Your task to perform on an android device: See recent photos Image 0: 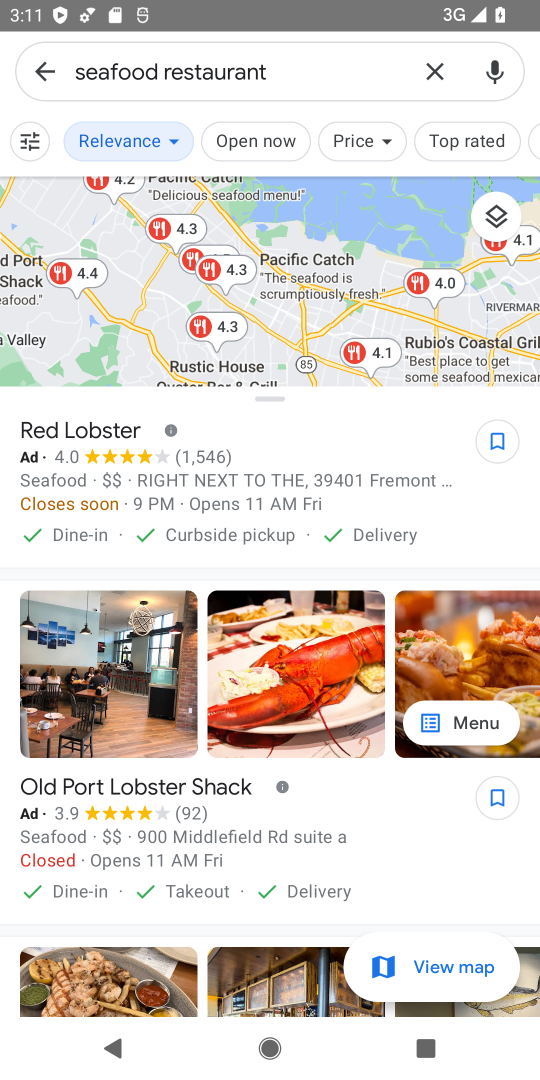
Step 0: press home button
Your task to perform on an android device: See recent photos Image 1: 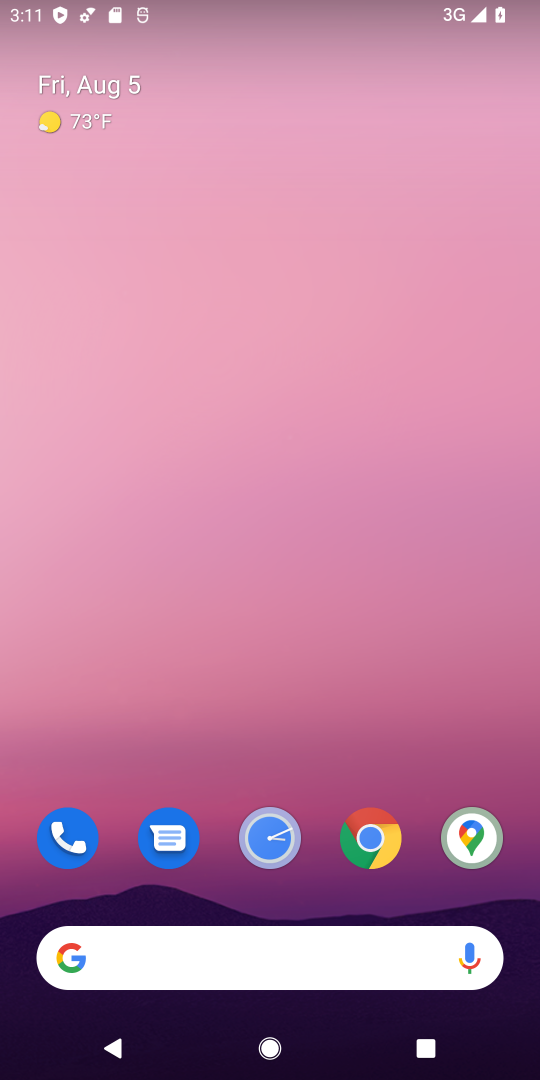
Step 1: drag from (260, 995) to (276, 175)
Your task to perform on an android device: See recent photos Image 2: 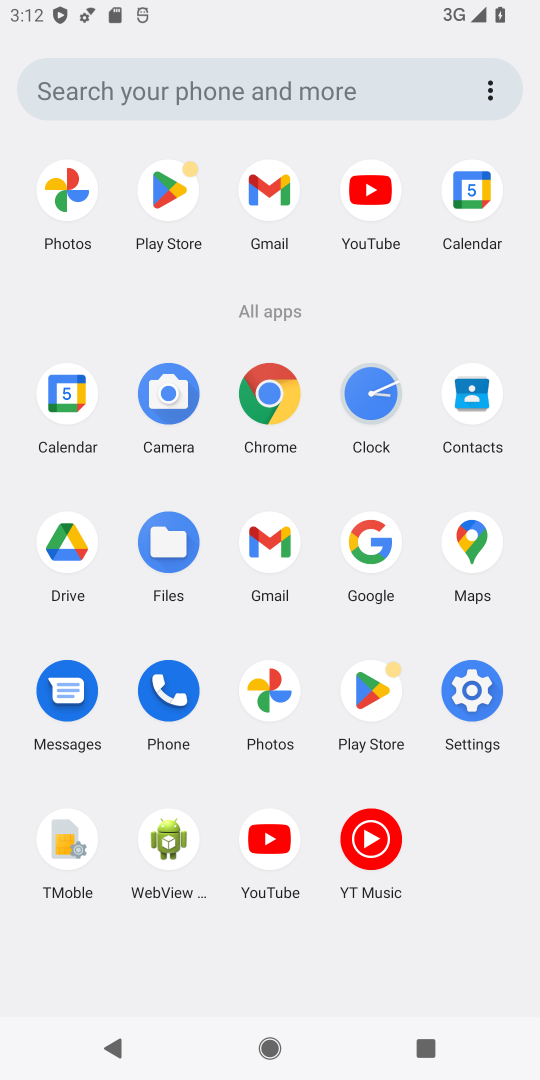
Step 2: click (264, 527)
Your task to perform on an android device: See recent photos Image 3: 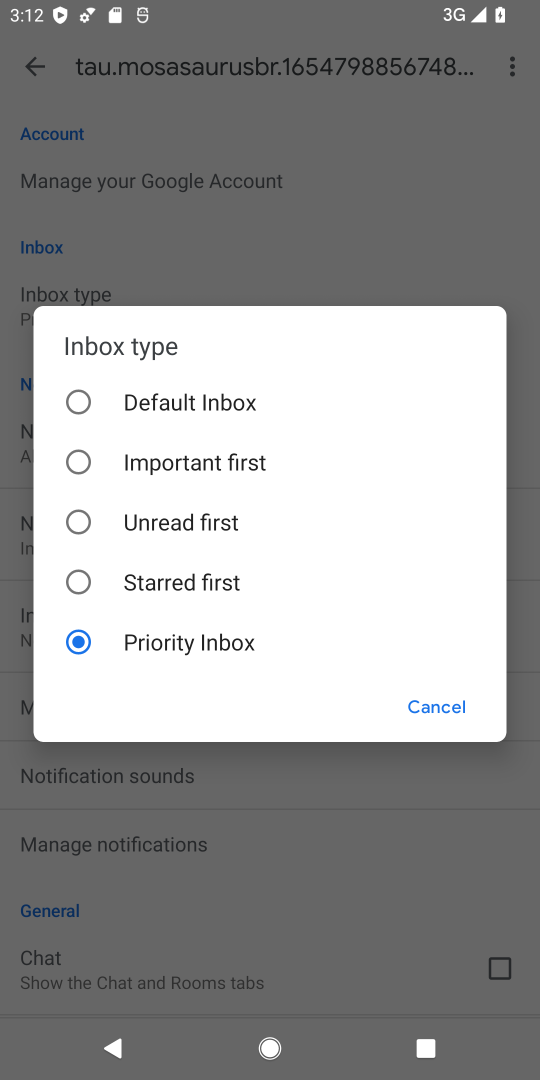
Step 3: press home button
Your task to perform on an android device: See recent photos Image 4: 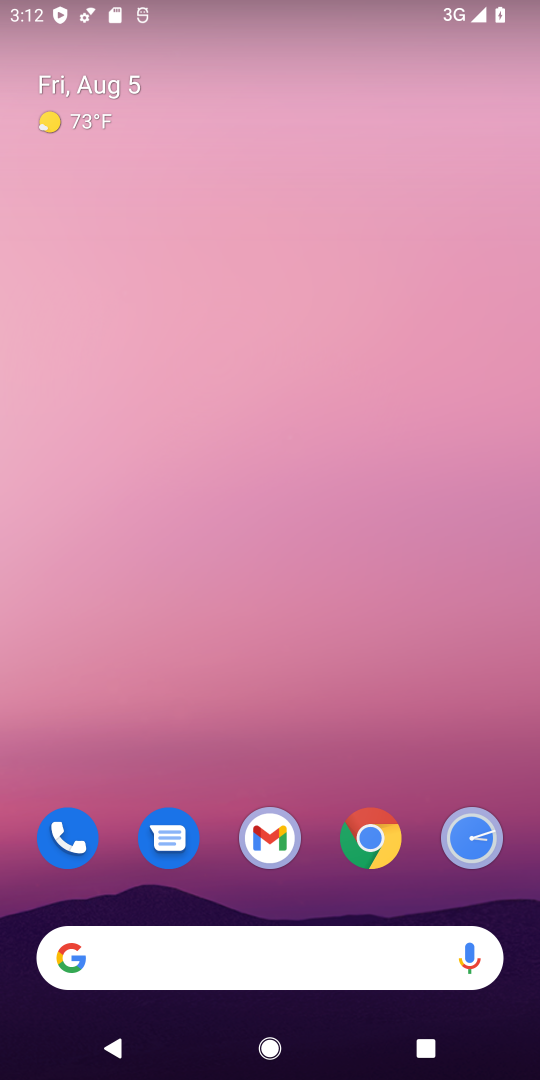
Step 4: drag from (222, 809) to (453, 155)
Your task to perform on an android device: See recent photos Image 5: 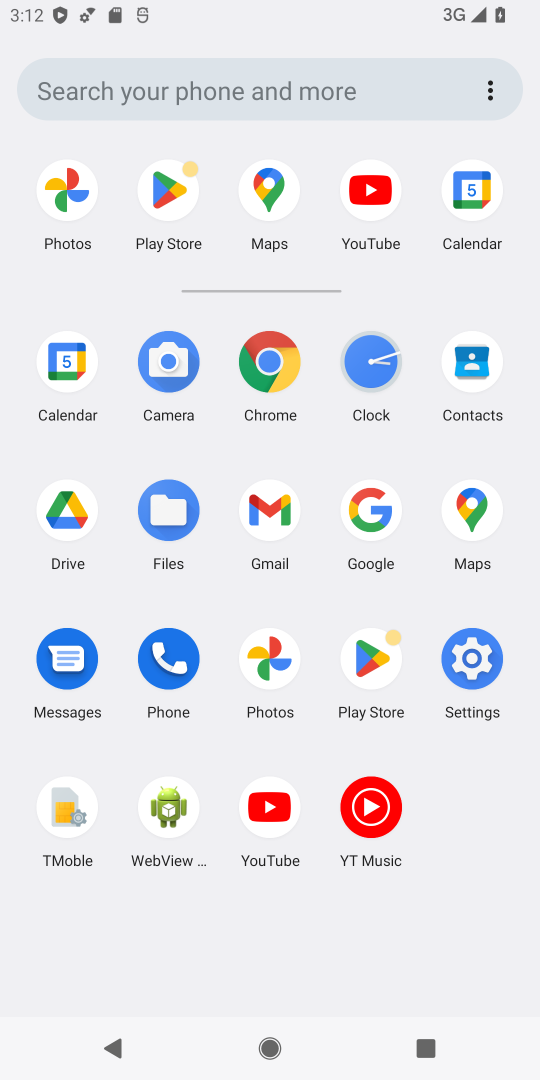
Step 5: click (250, 351)
Your task to perform on an android device: See recent photos Image 6: 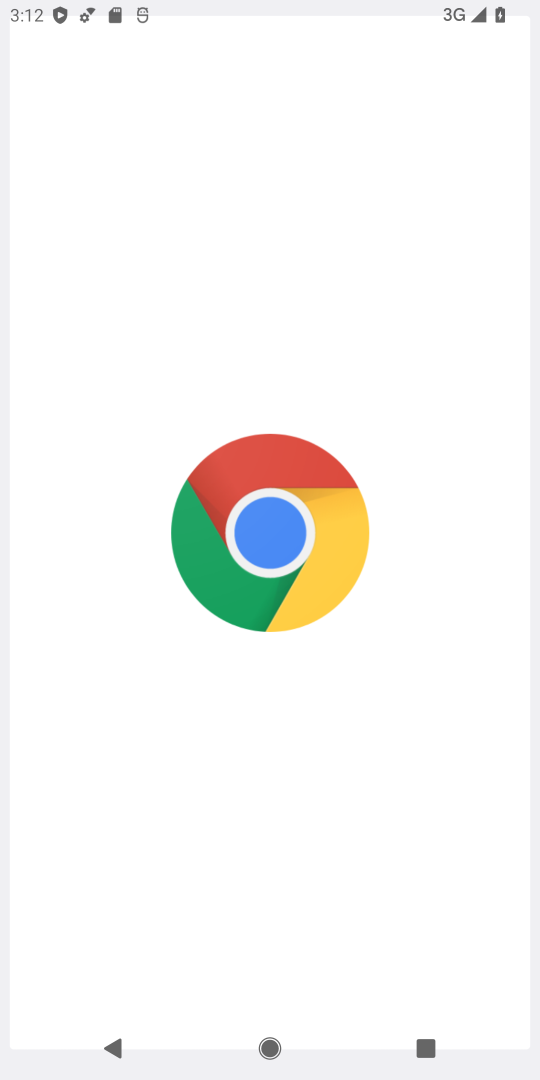
Step 6: click (283, 385)
Your task to perform on an android device: See recent photos Image 7: 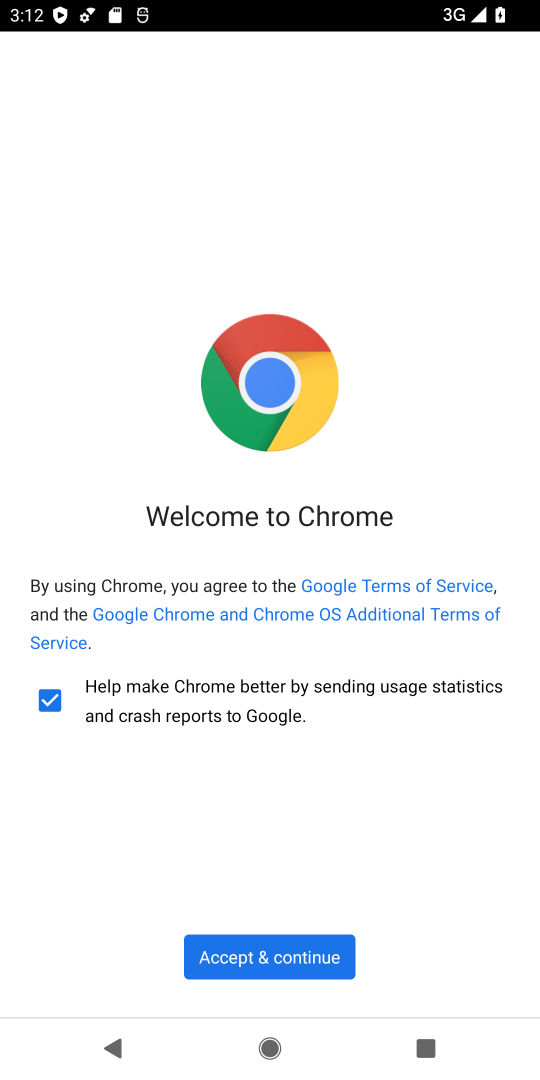
Step 7: click (308, 952)
Your task to perform on an android device: See recent photos Image 8: 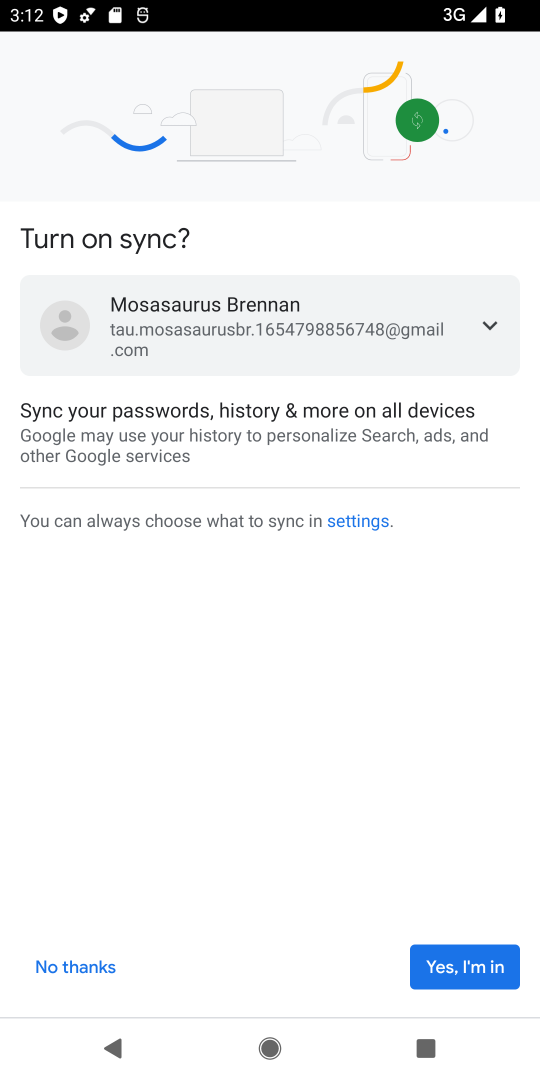
Step 8: click (485, 965)
Your task to perform on an android device: See recent photos Image 9: 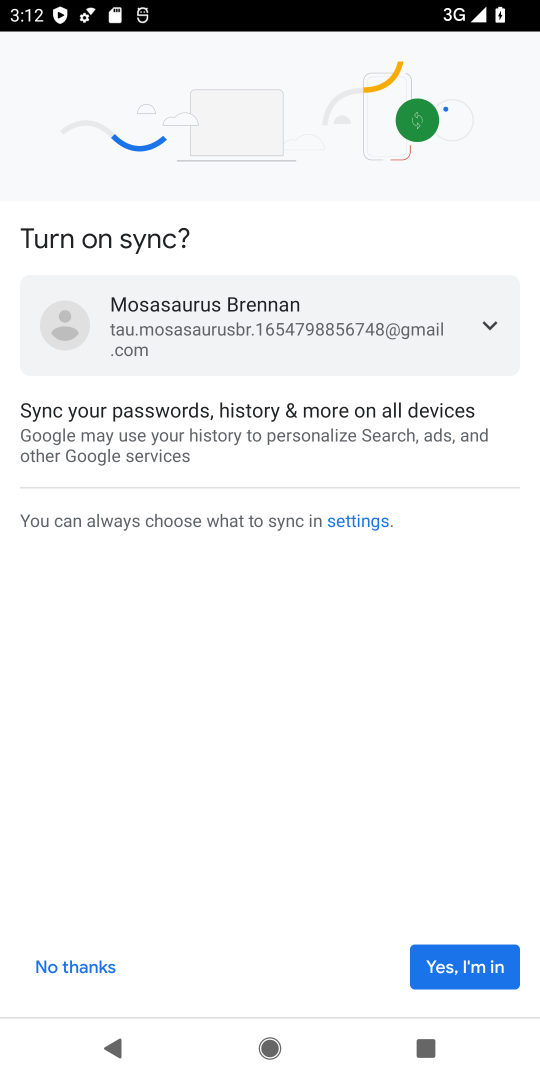
Step 9: click (452, 958)
Your task to perform on an android device: See recent photos Image 10: 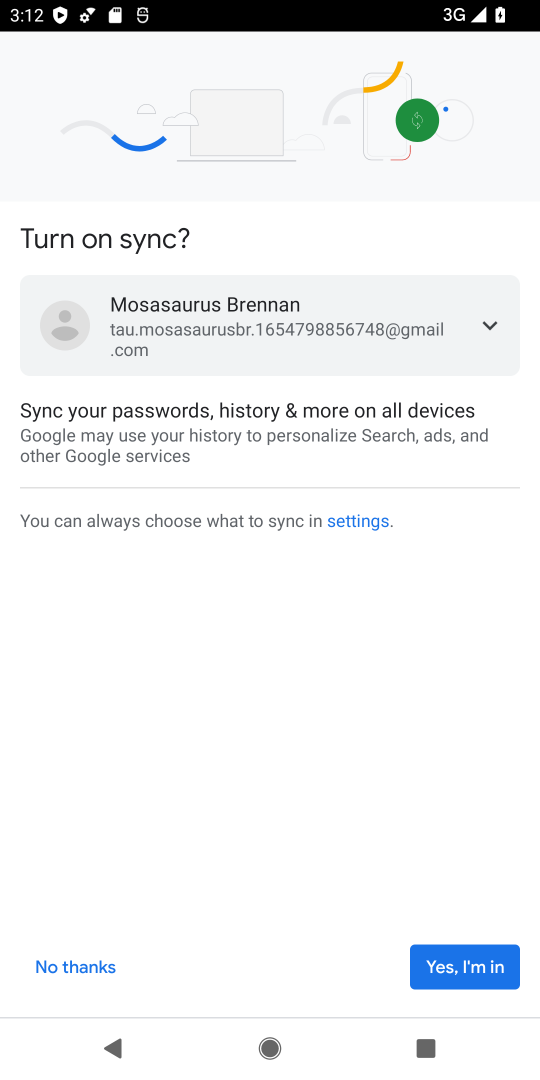
Step 10: click (452, 960)
Your task to perform on an android device: See recent photos Image 11: 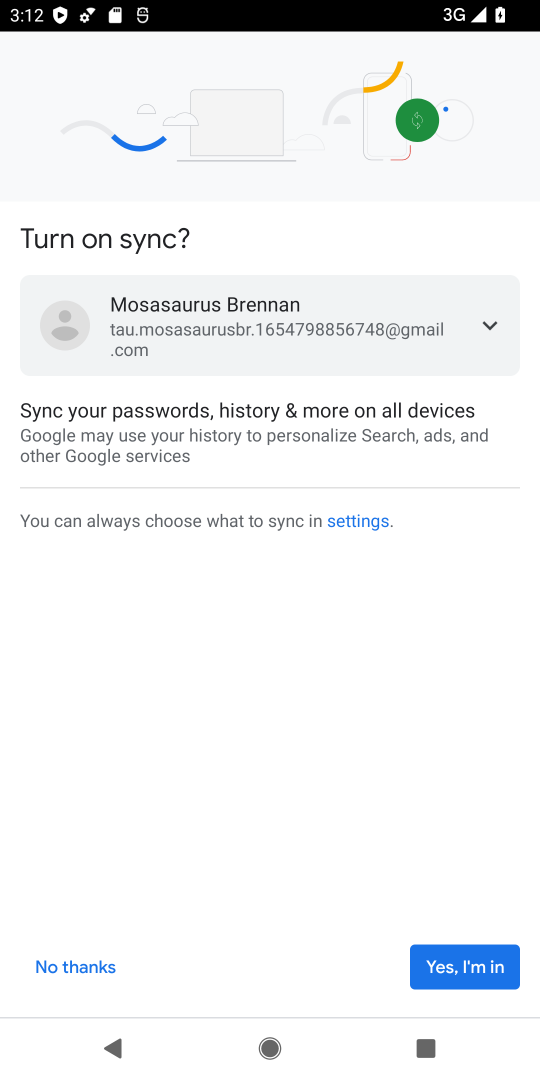
Step 11: click (452, 960)
Your task to perform on an android device: See recent photos Image 12: 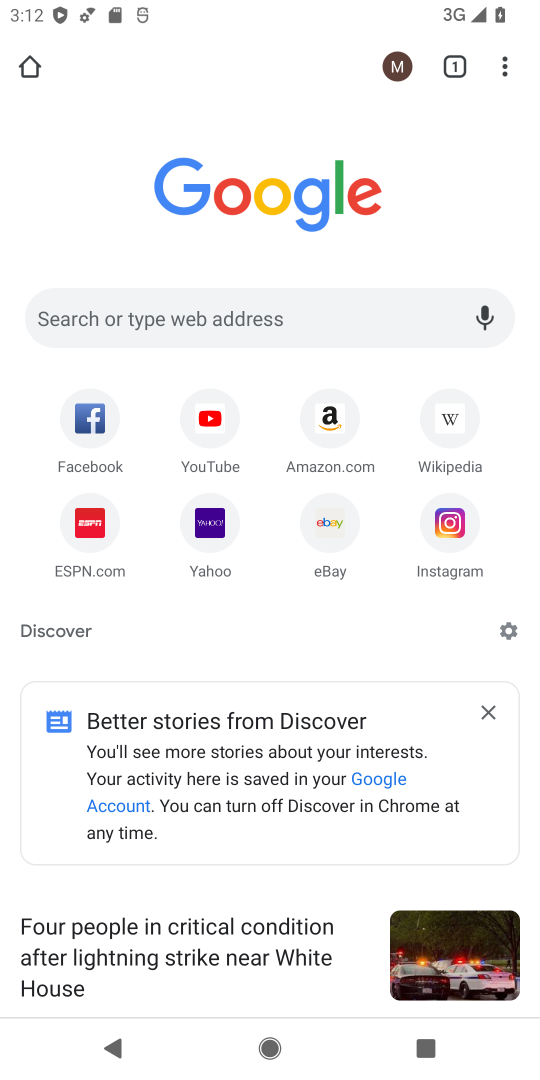
Step 12: press home button
Your task to perform on an android device: See recent photos Image 13: 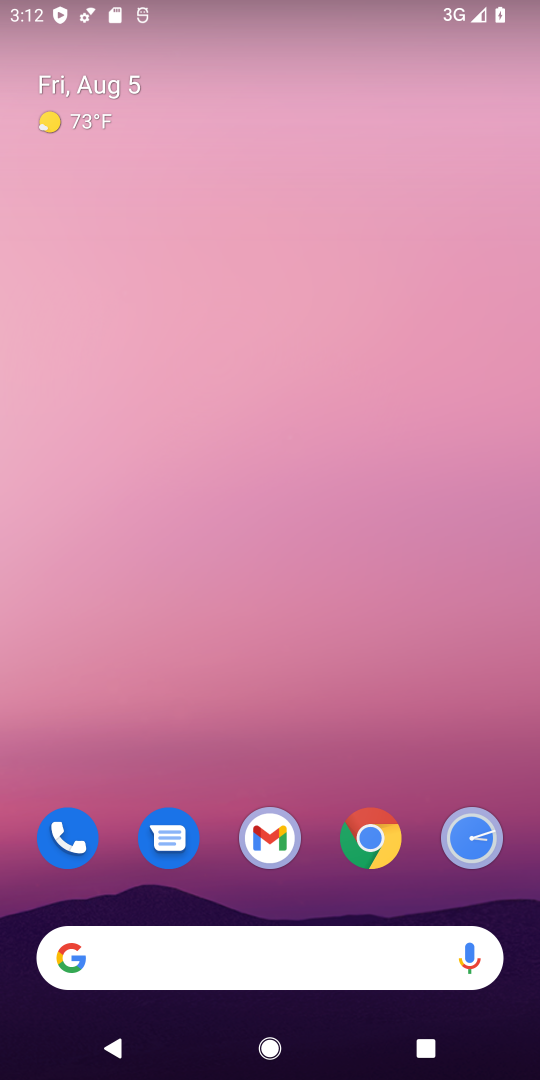
Step 13: drag from (258, 850) to (252, 329)
Your task to perform on an android device: See recent photos Image 14: 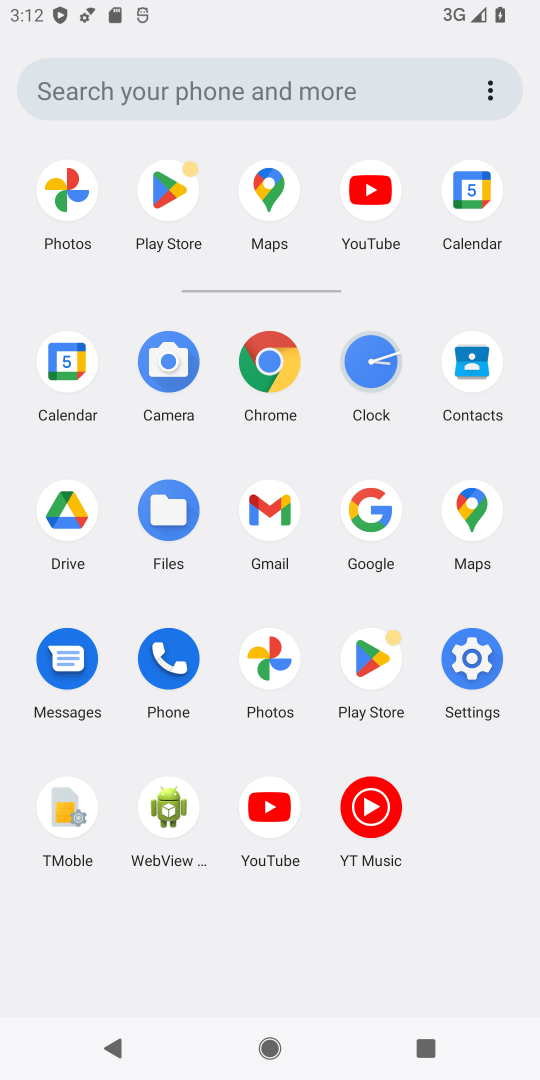
Step 14: click (241, 652)
Your task to perform on an android device: See recent photos Image 15: 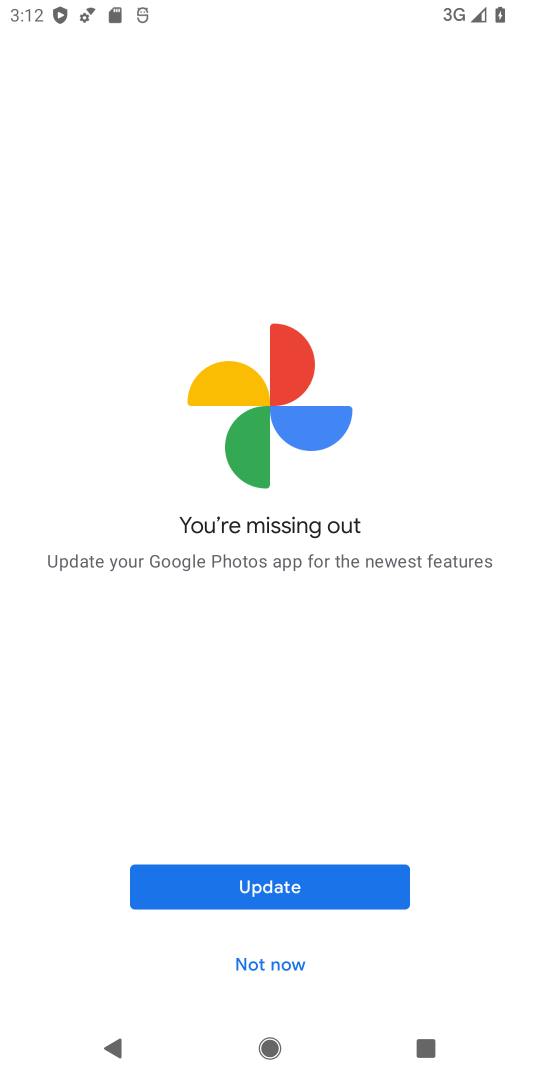
Step 15: click (298, 956)
Your task to perform on an android device: See recent photos Image 16: 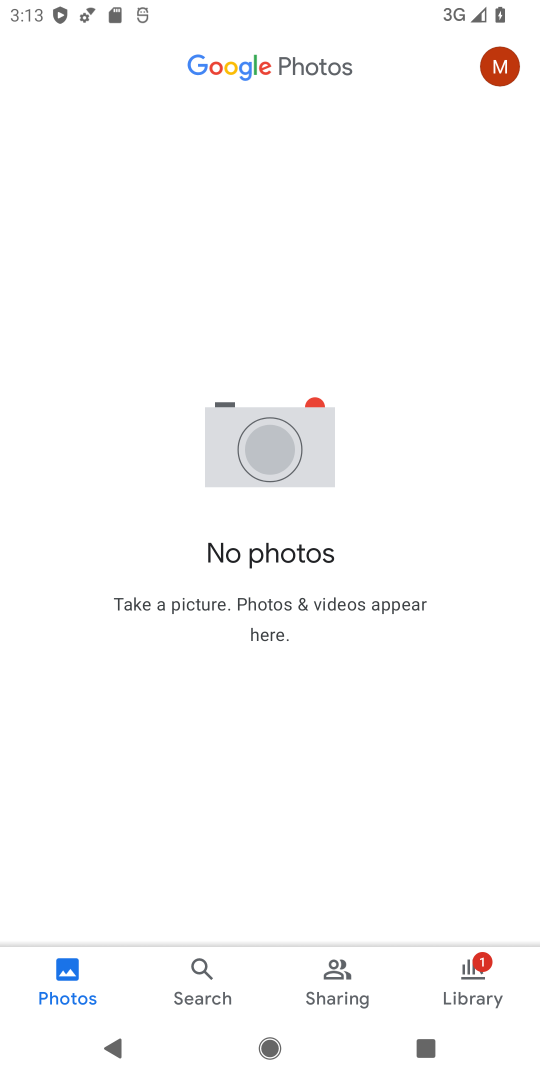
Step 16: click (158, 965)
Your task to perform on an android device: See recent photos Image 17: 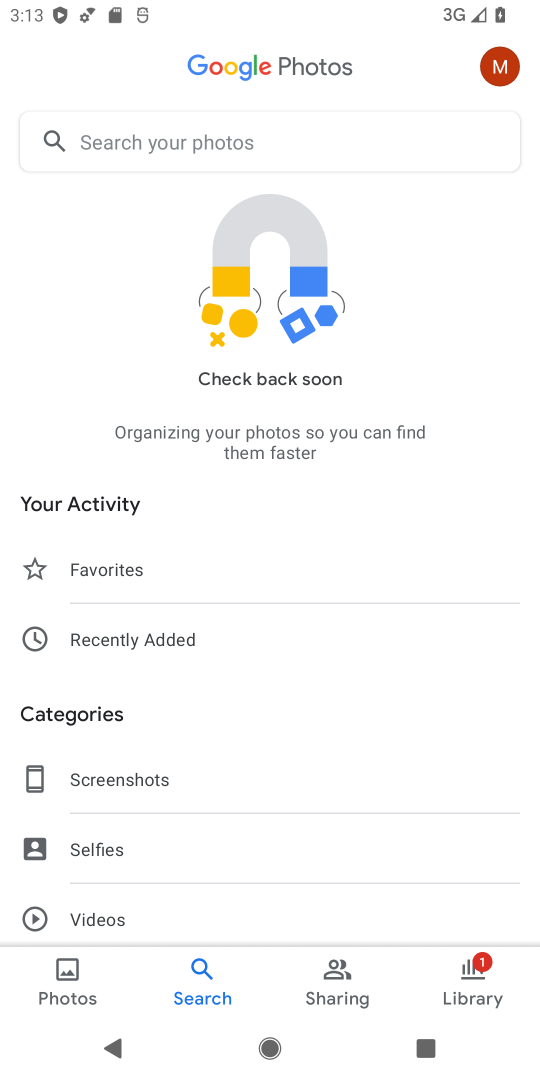
Step 17: task complete